Your task to perform on an android device: Open location settings Image 0: 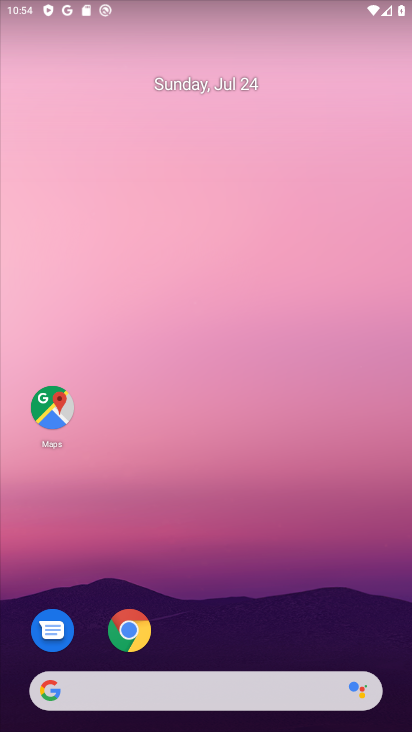
Step 0: press home button
Your task to perform on an android device: Open location settings Image 1: 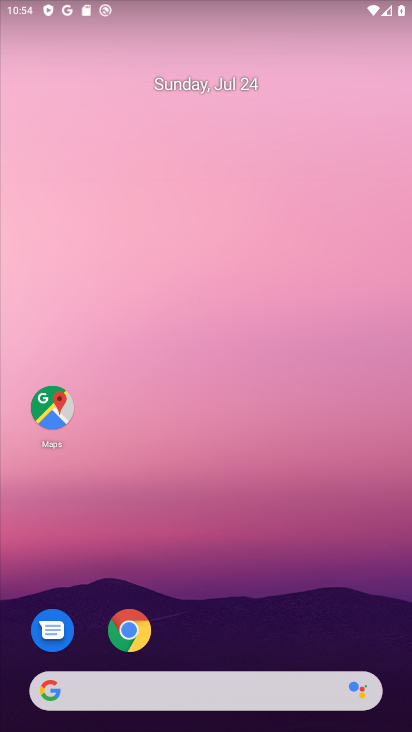
Step 1: drag from (229, 512) to (229, 85)
Your task to perform on an android device: Open location settings Image 2: 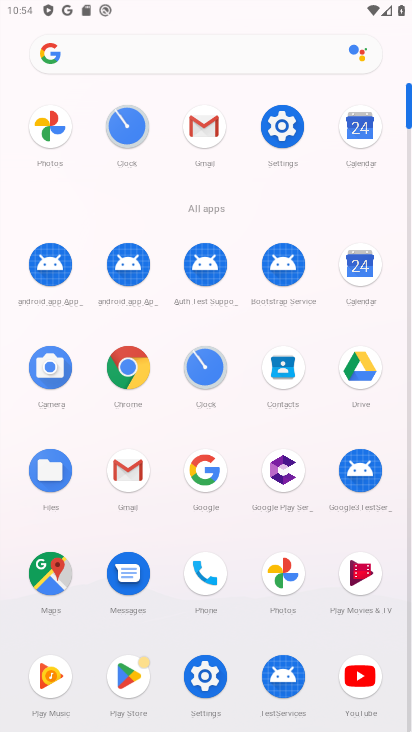
Step 2: click (278, 122)
Your task to perform on an android device: Open location settings Image 3: 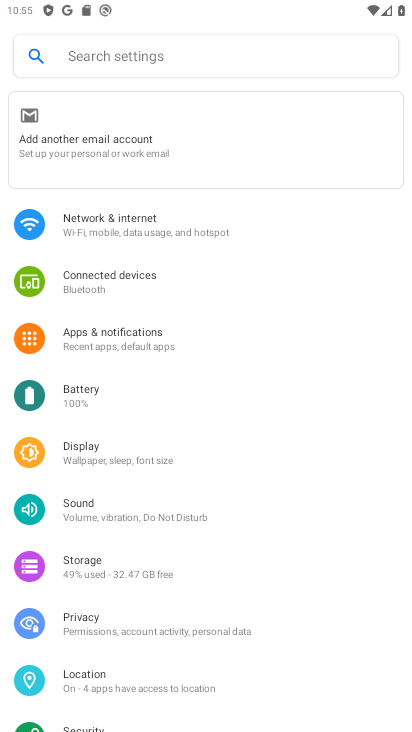
Step 3: click (119, 675)
Your task to perform on an android device: Open location settings Image 4: 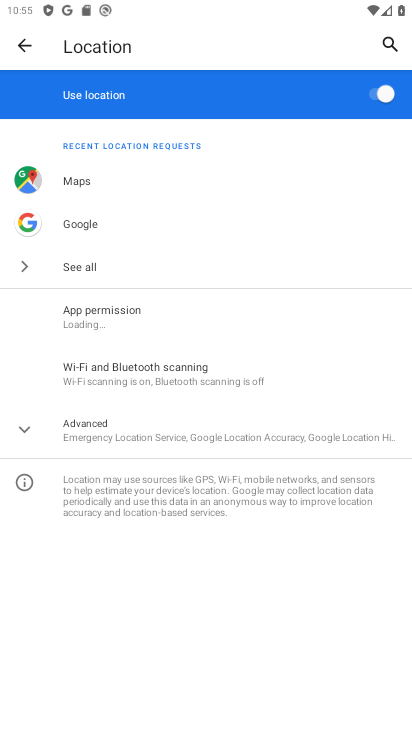
Step 4: task complete